Your task to perform on an android device: Search for seafood restaurants on Google Maps Image 0: 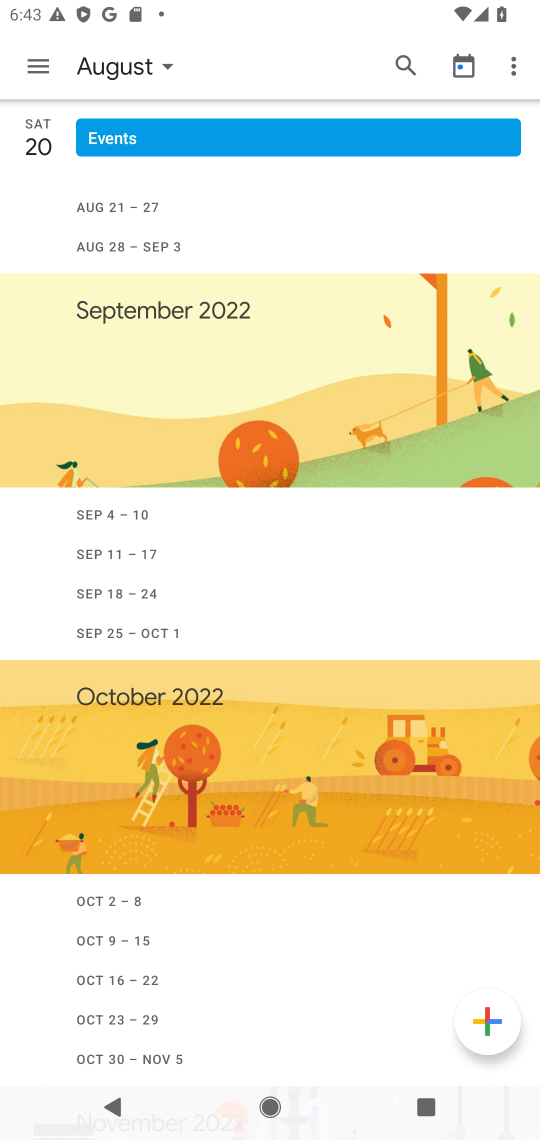
Step 0: press home button
Your task to perform on an android device: Search for seafood restaurants on Google Maps Image 1: 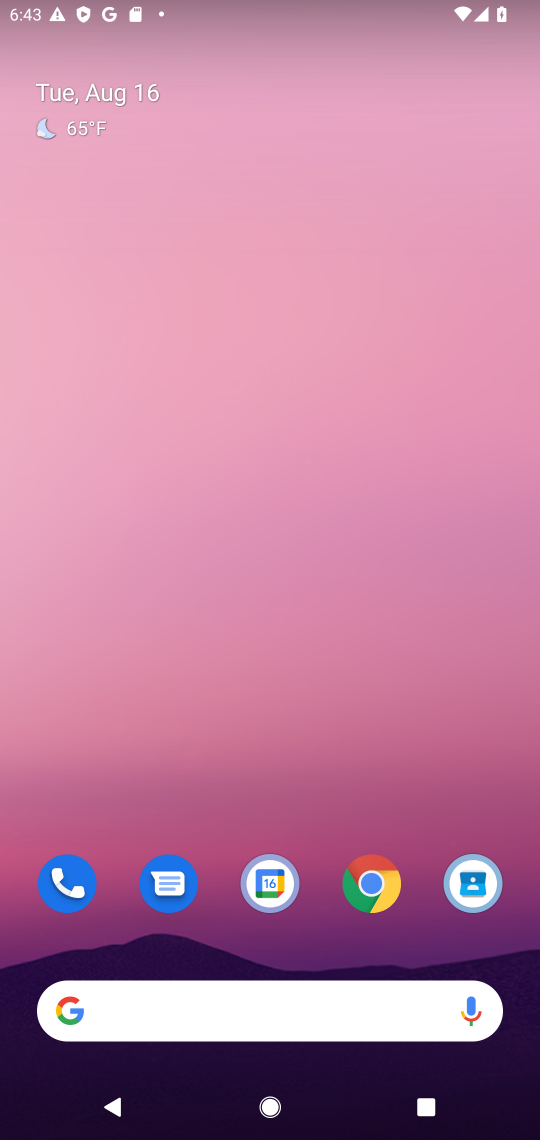
Step 1: drag from (181, 1019) to (246, 240)
Your task to perform on an android device: Search for seafood restaurants on Google Maps Image 2: 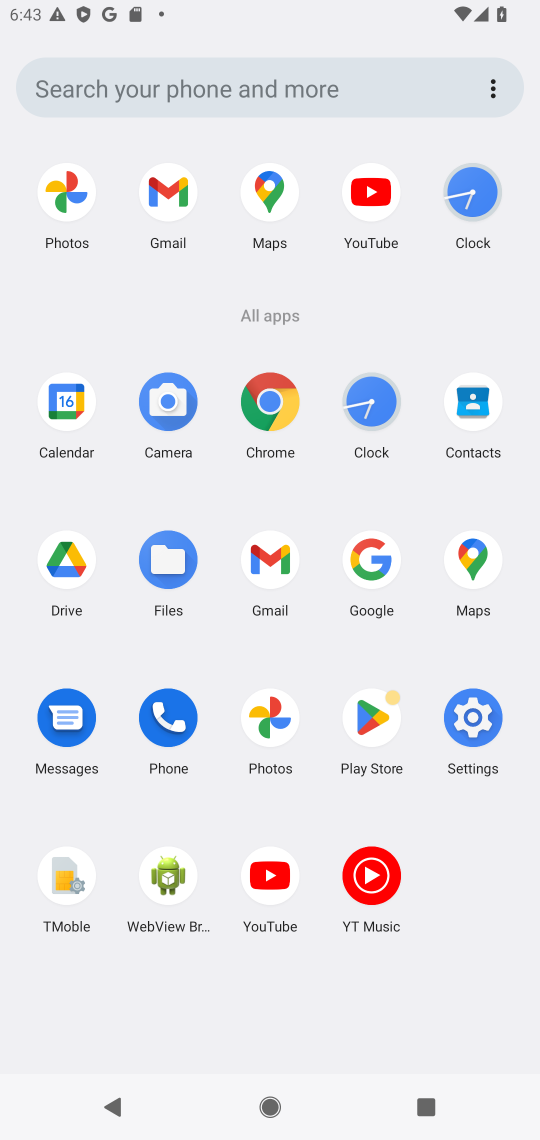
Step 2: click (270, 189)
Your task to perform on an android device: Search for seafood restaurants on Google Maps Image 3: 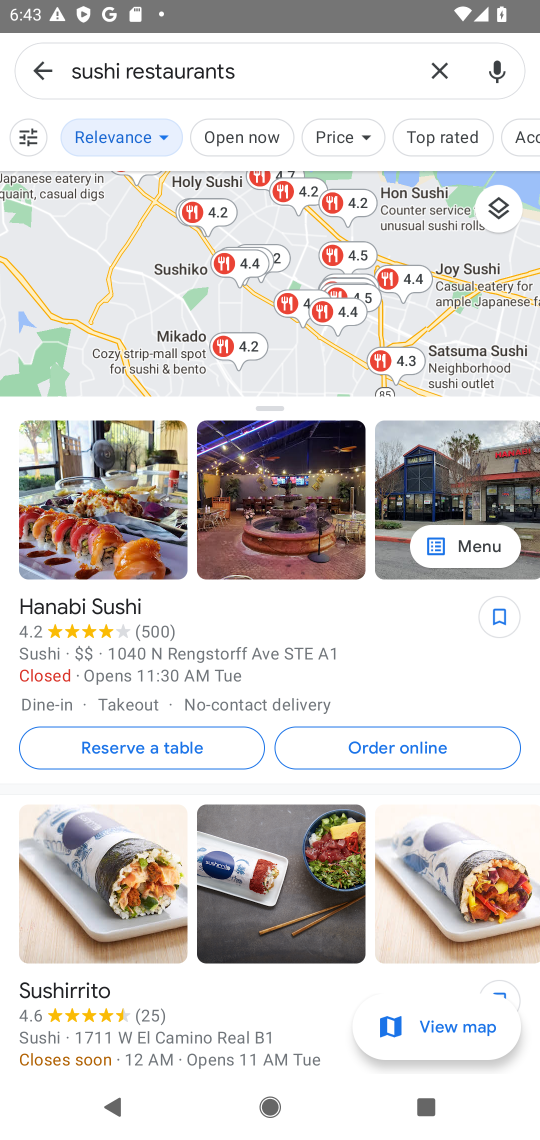
Step 3: click (440, 68)
Your task to perform on an android device: Search for seafood restaurants on Google Maps Image 4: 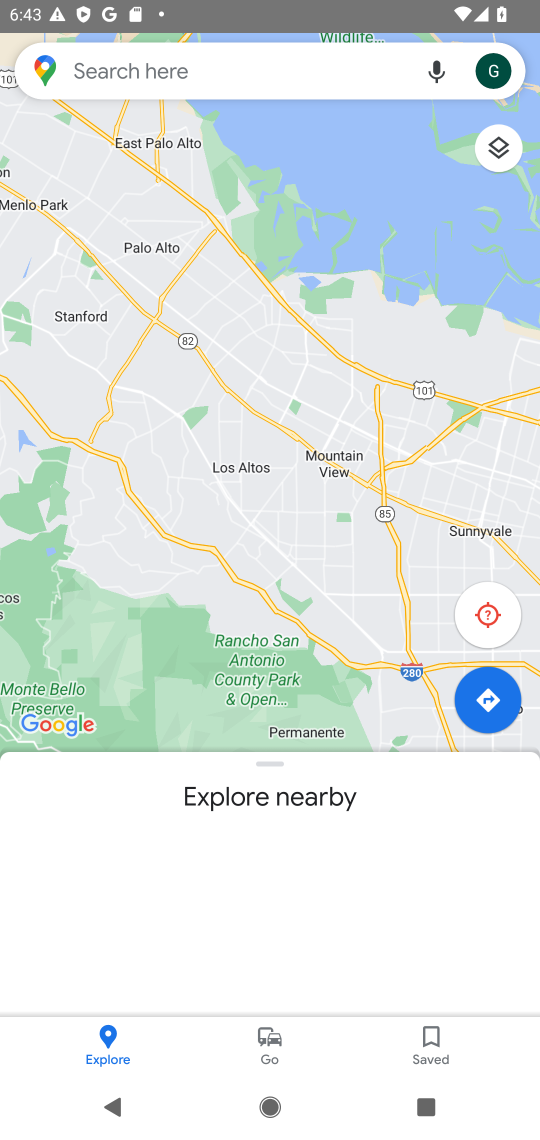
Step 4: click (296, 71)
Your task to perform on an android device: Search for seafood restaurants on Google Maps Image 5: 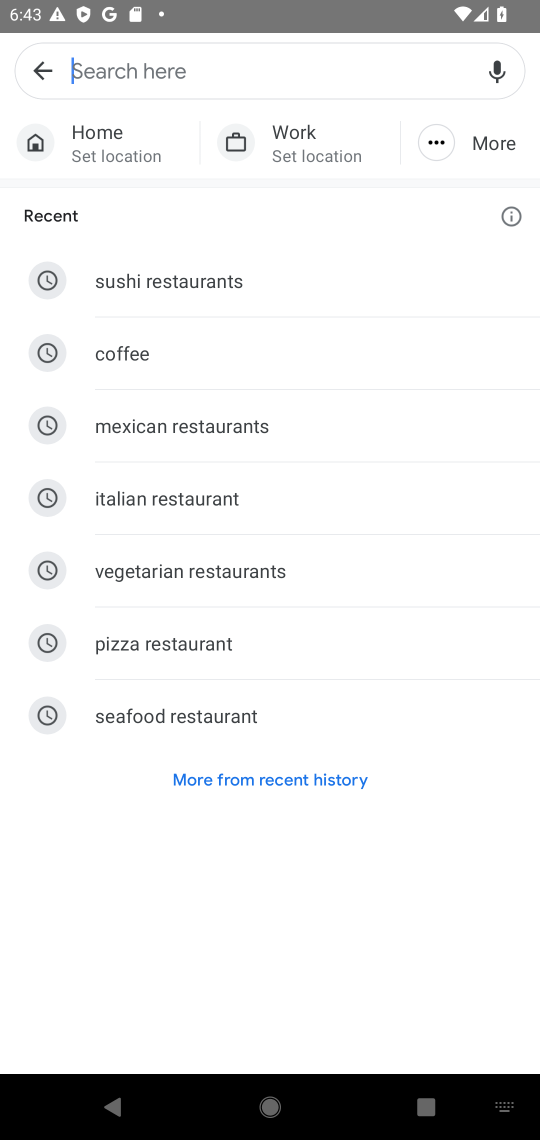
Step 5: type "seafood restaurants"
Your task to perform on an android device: Search for seafood restaurants on Google Maps Image 6: 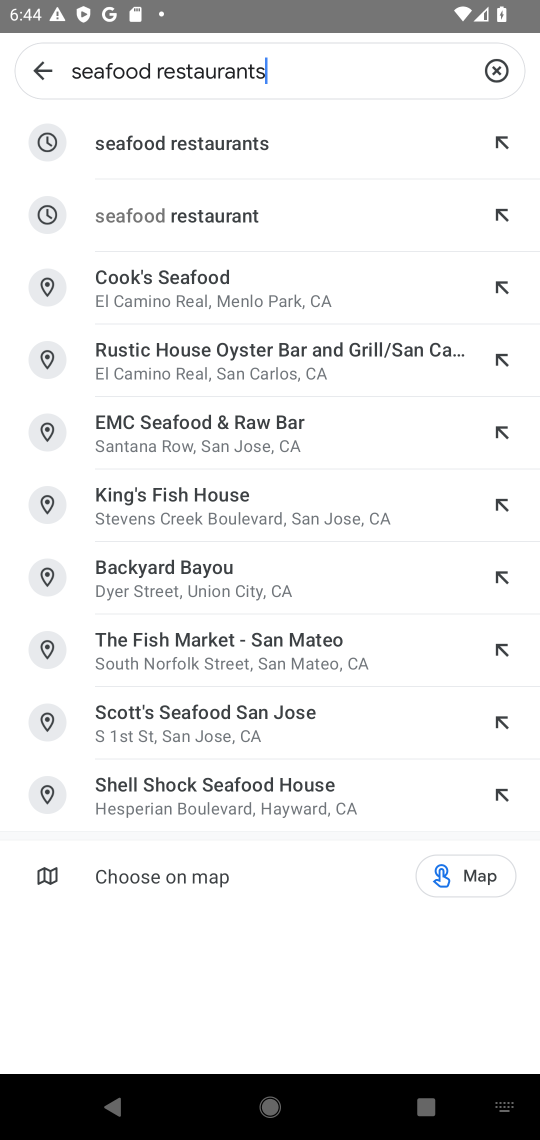
Step 6: click (205, 150)
Your task to perform on an android device: Search for seafood restaurants on Google Maps Image 7: 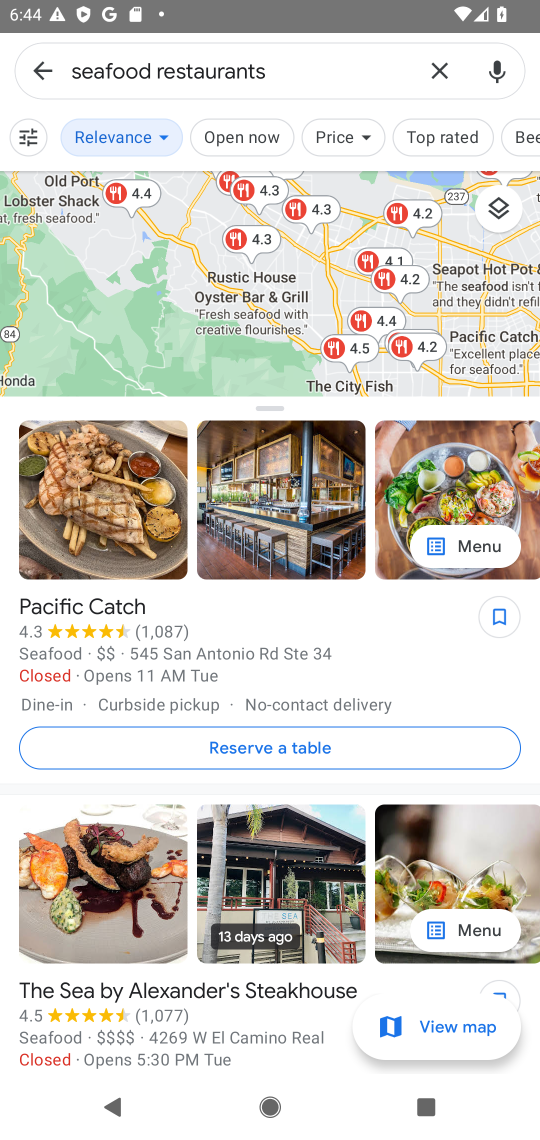
Step 7: task complete